Your task to perform on an android device: Search for seafood restaurants on Google Maps Image 0: 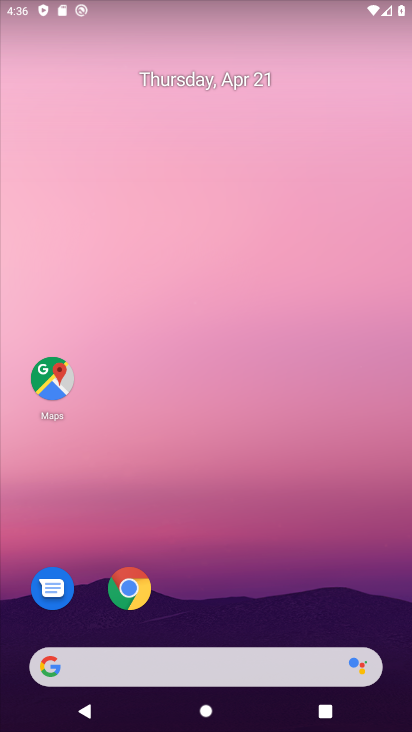
Step 0: click (46, 374)
Your task to perform on an android device: Search for seafood restaurants on Google Maps Image 1: 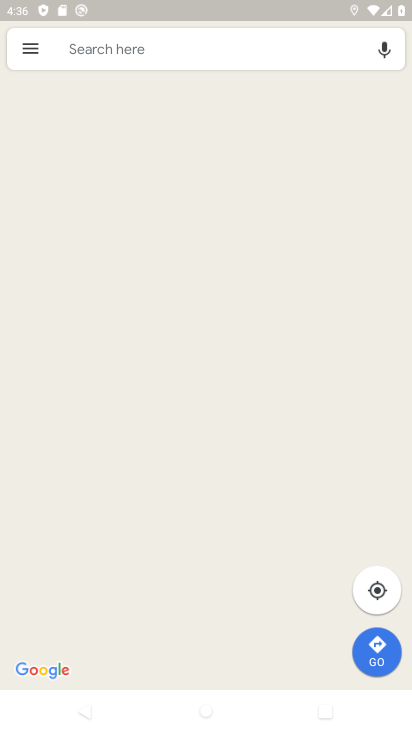
Step 1: click (151, 55)
Your task to perform on an android device: Search for seafood restaurants on Google Maps Image 2: 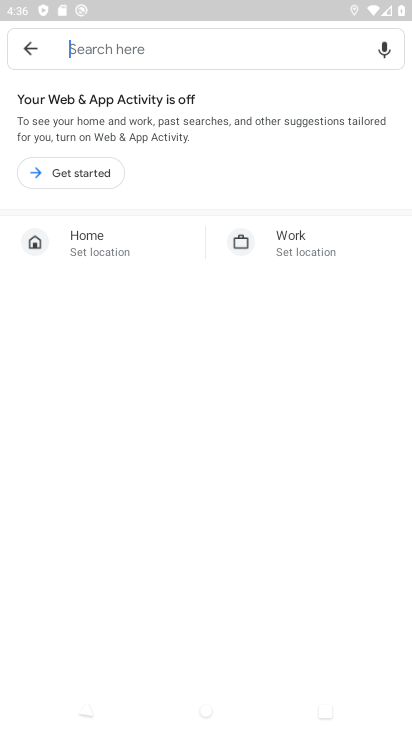
Step 2: click (100, 49)
Your task to perform on an android device: Search for seafood restaurants on Google Maps Image 3: 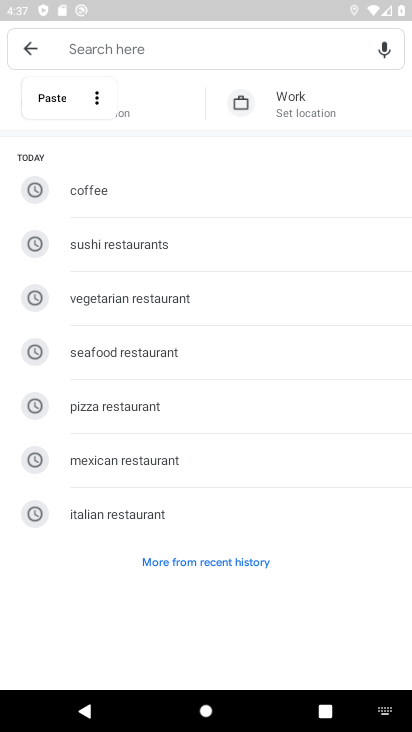
Step 3: type "seafood restaurants"
Your task to perform on an android device: Search for seafood restaurants on Google Maps Image 4: 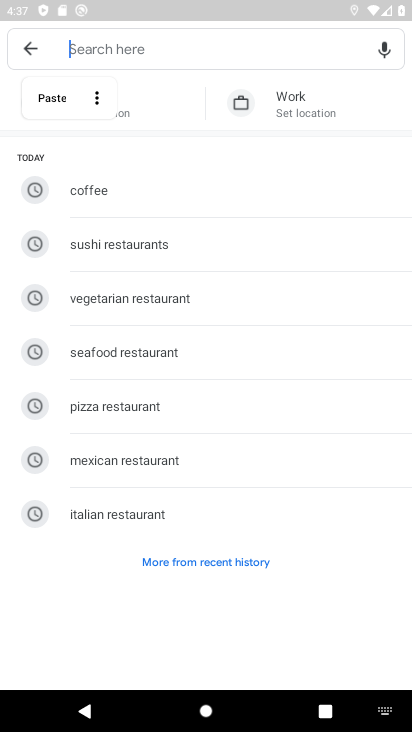
Step 4: click (108, 360)
Your task to perform on an android device: Search for seafood restaurants on Google Maps Image 5: 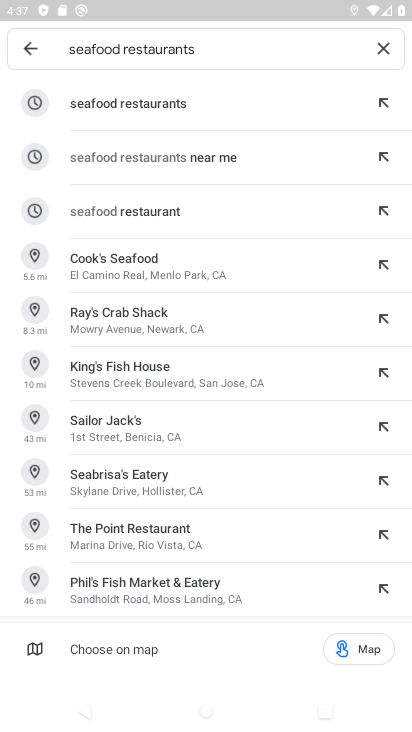
Step 5: click (193, 95)
Your task to perform on an android device: Search for seafood restaurants on Google Maps Image 6: 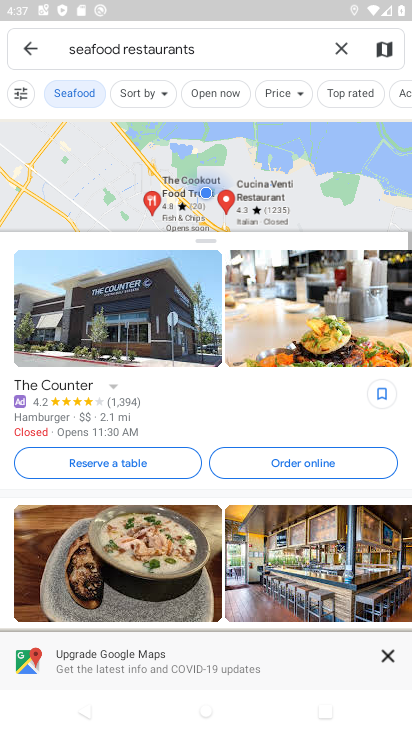
Step 6: task complete